Your task to perform on an android device: Open calendar and show me the first week of next month Image 0: 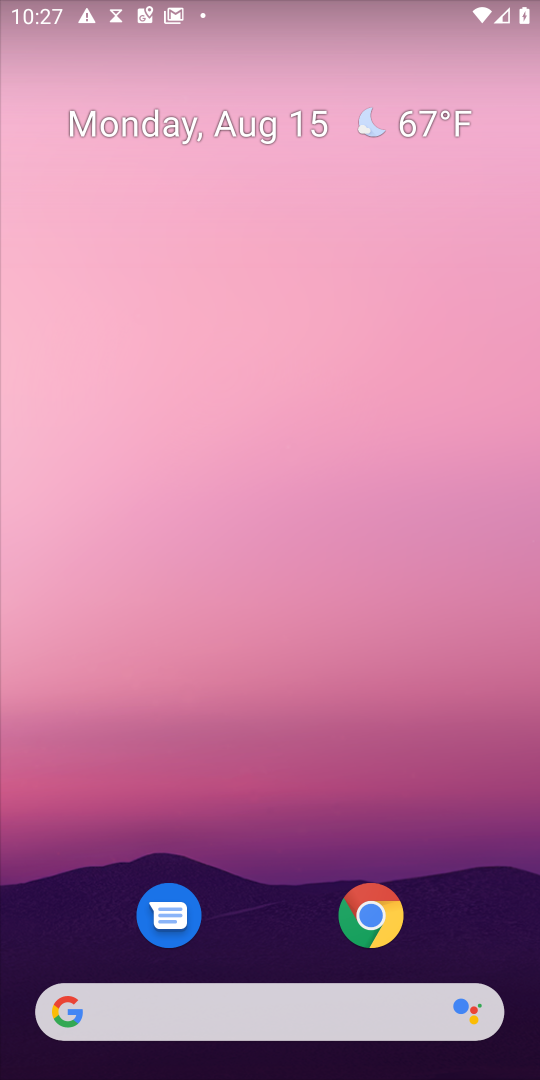
Step 0: press home button
Your task to perform on an android device: Open calendar and show me the first week of next month Image 1: 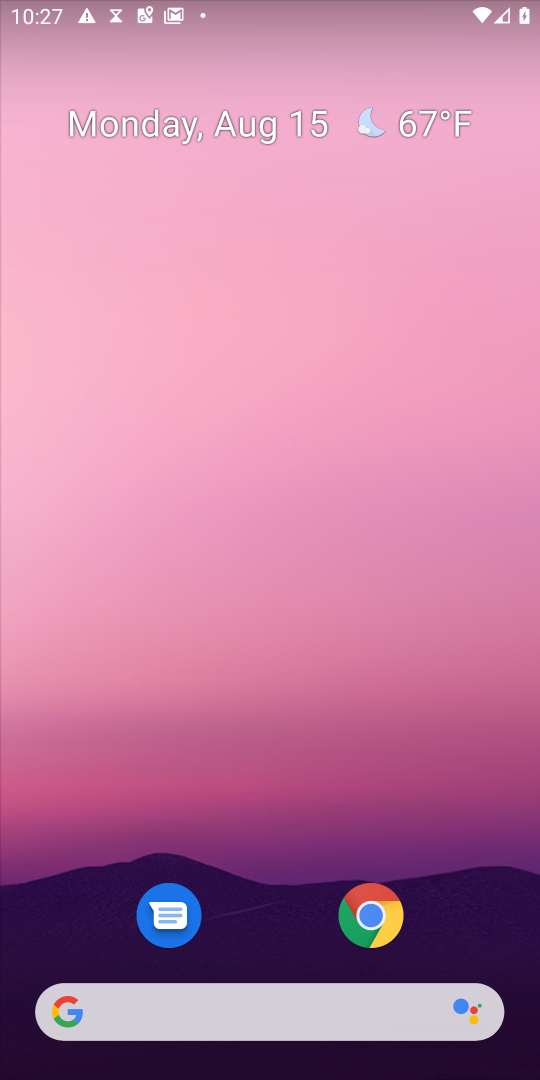
Step 1: drag from (269, 942) to (293, 241)
Your task to perform on an android device: Open calendar and show me the first week of next month Image 2: 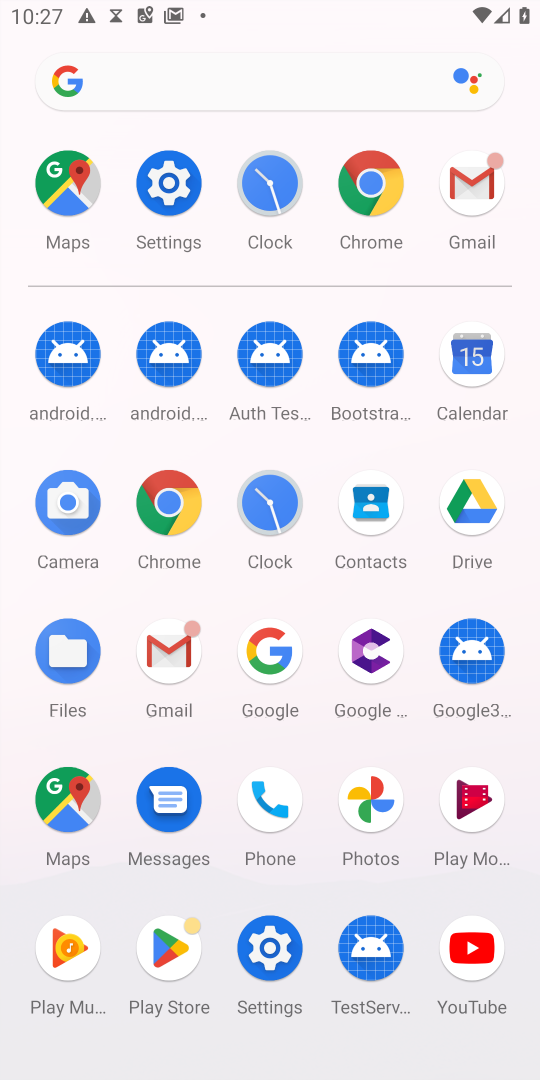
Step 2: click (471, 368)
Your task to perform on an android device: Open calendar and show me the first week of next month Image 3: 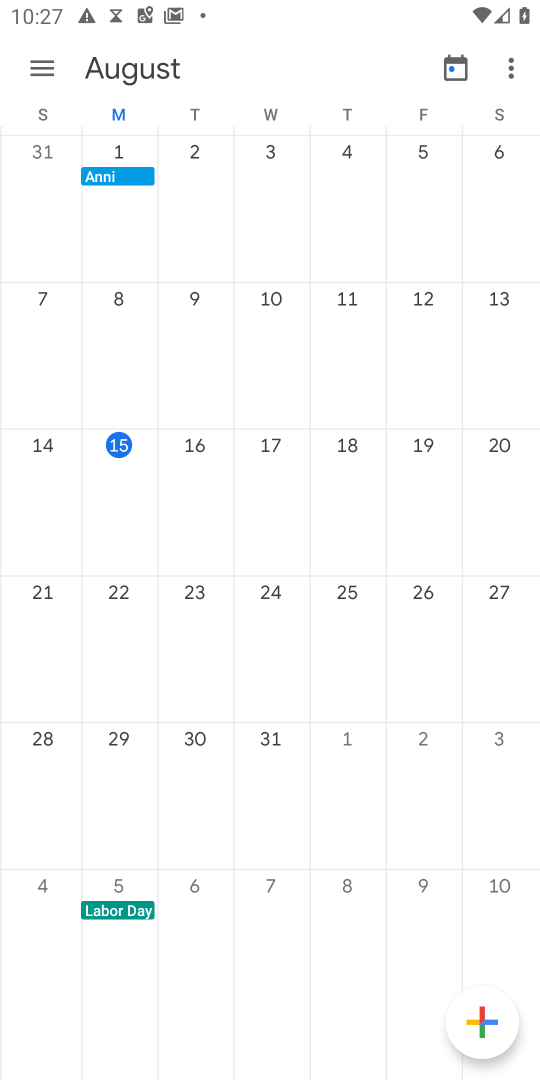
Step 3: task complete